Your task to perform on an android device: Do I have any events tomorrow? Image 0: 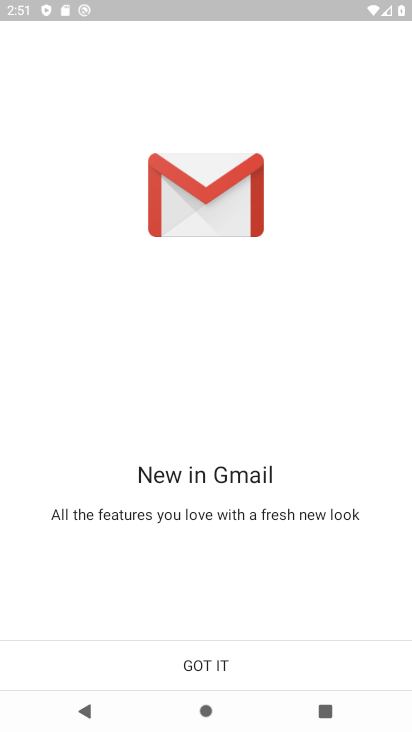
Step 0: press home button
Your task to perform on an android device: Do I have any events tomorrow? Image 1: 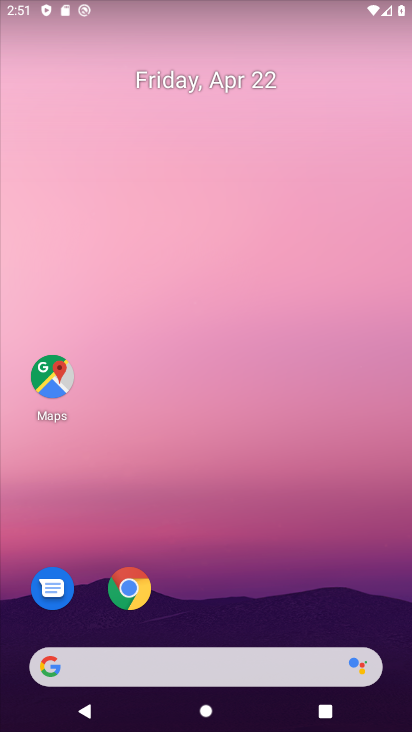
Step 1: drag from (311, 600) to (301, 141)
Your task to perform on an android device: Do I have any events tomorrow? Image 2: 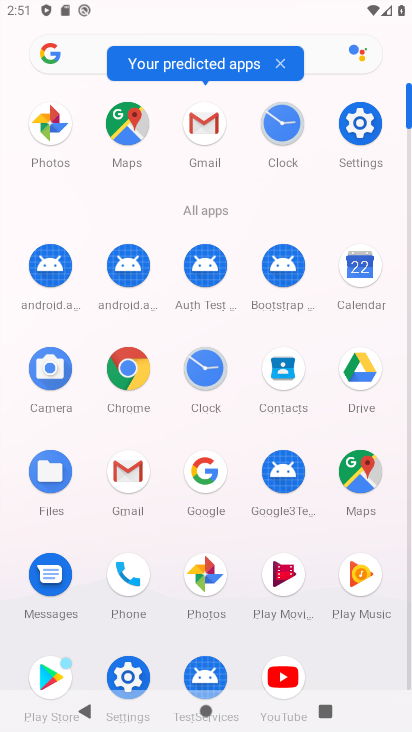
Step 2: click (355, 264)
Your task to perform on an android device: Do I have any events tomorrow? Image 3: 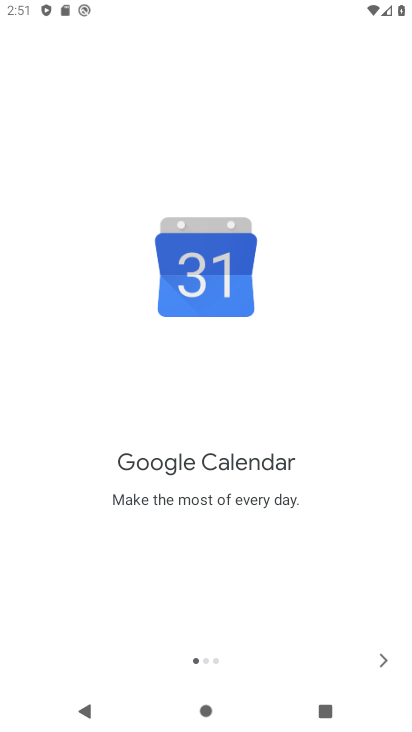
Step 3: click (377, 663)
Your task to perform on an android device: Do I have any events tomorrow? Image 4: 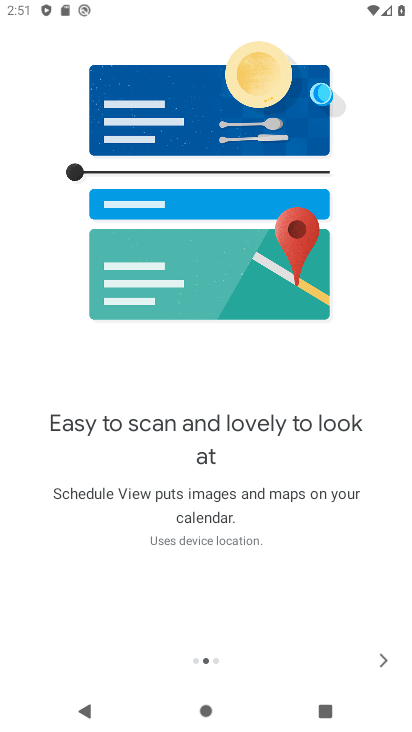
Step 4: click (377, 663)
Your task to perform on an android device: Do I have any events tomorrow? Image 5: 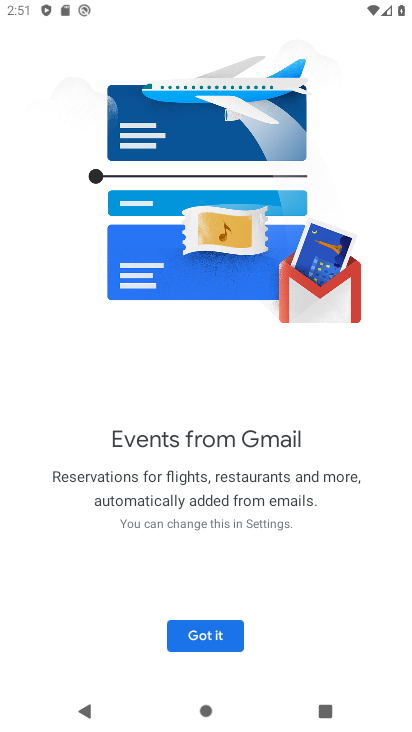
Step 5: click (206, 632)
Your task to perform on an android device: Do I have any events tomorrow? Image 6: 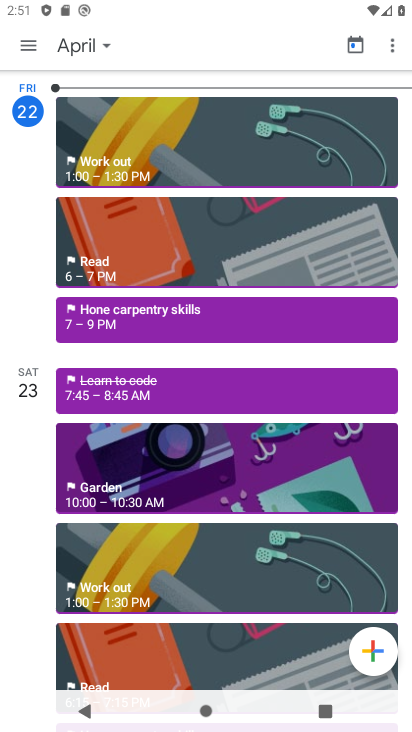
Step 6: click (29, 45)
Your task to perform on an android device: Do I have any events tomorrow? Image 7: 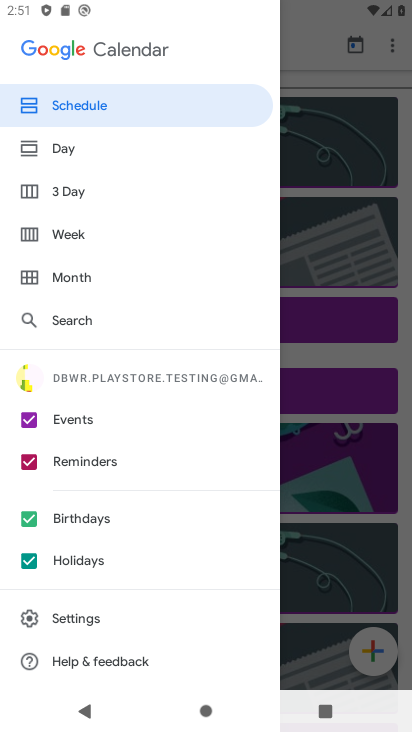
Step 7: click (192, 103)
Your task to perform on an android device: Do I have any events tomorrow? Image 8: 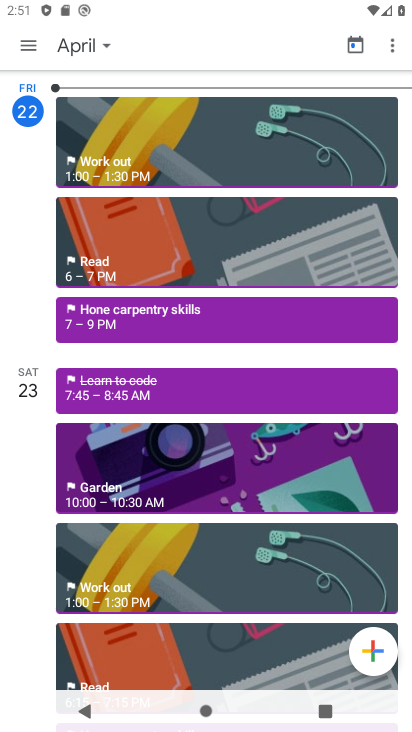
Step 8: click (27, 36)
Your task to perform on an android device: Do I have any events tomorrow? Image 9: 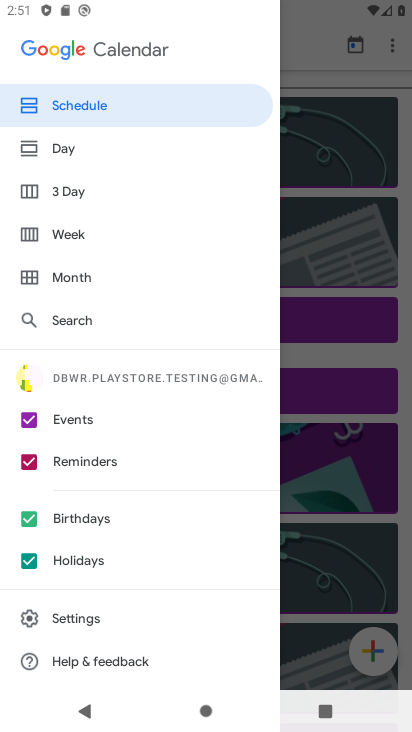
Step 9: click (59, 147)
Your task to perform on an android device: Do I have any events tomorrow? Image 10: 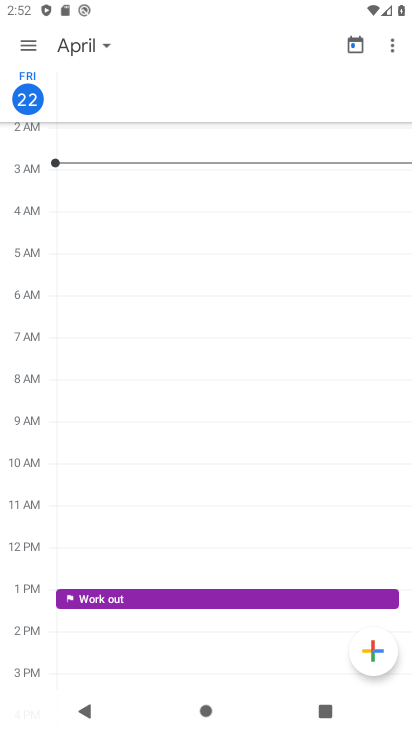
Step 10: click (97, 47)
Your task to perform on an android device: Do I have any events tomorrow? Image 11: 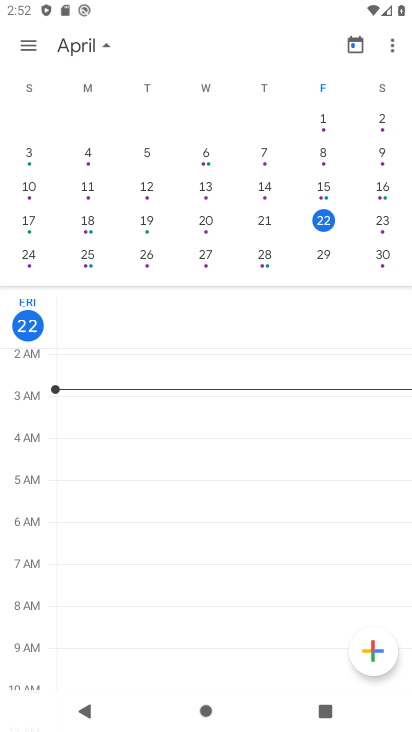
Step 11: click (376, 222)
Your task to perform on an android device: Do I have any events tomorrow? Image 12: 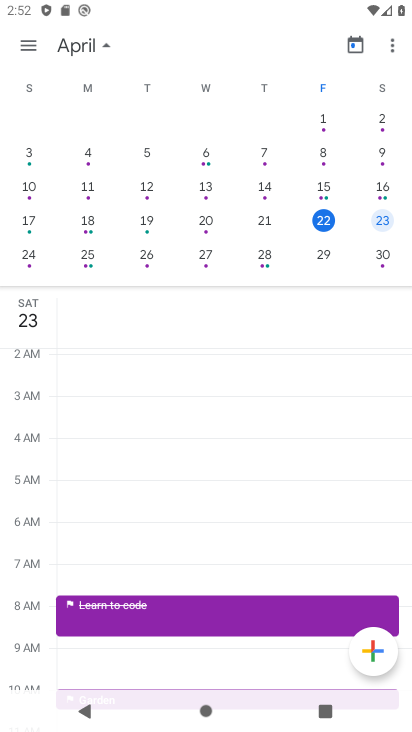
Step 12: drag from (216, 526) to (183, 243)
Your task to perform on an android device: Do I have any events tomorrow? Image 13: 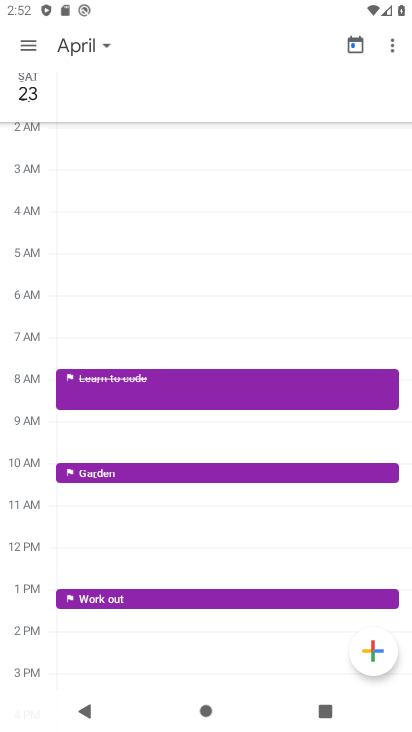
Step 13: drag from (256, 529) to (290, 184)
Your task to perform on an android device: Do I have any events tomorrow? Image 14: 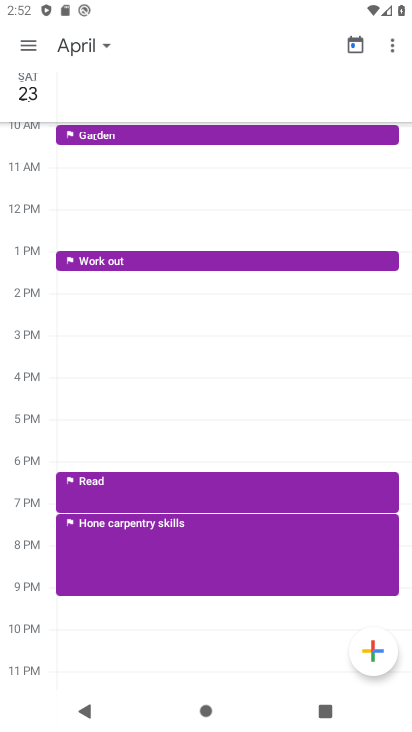
Step 14: click (247, 138)
Your task to perform on an android device: Do I have any events tomorrow? Image 15: 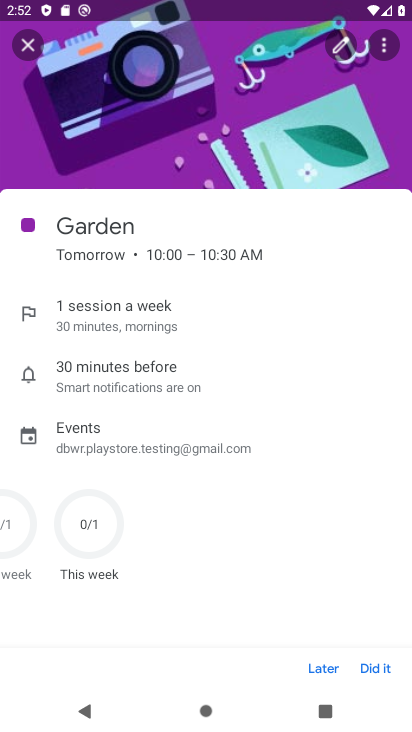
Step 15: task complete